Your task to perform on an android device: turn on airplane mode Image 0: 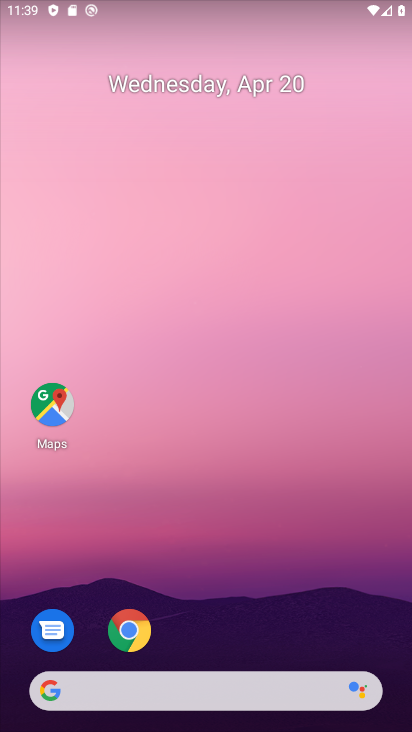
Step 0: drag from (247, 580) to (261, 164)
Your task to perform on an android device: turn on airplane mode Image 1: 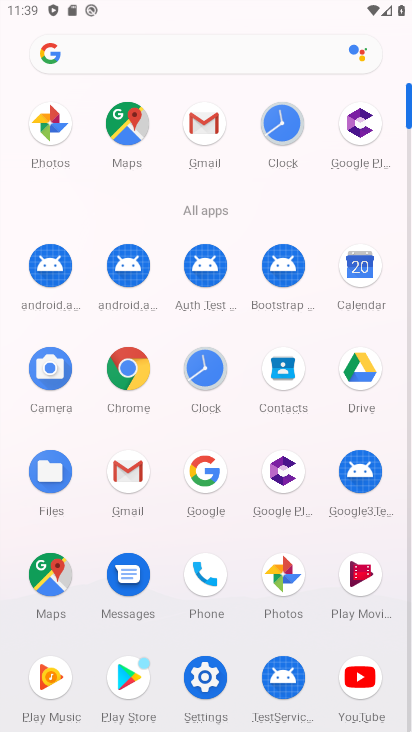
Step 1: click (215, 684)
Your task to perform on an android device: turn on airplane mode Image 2: 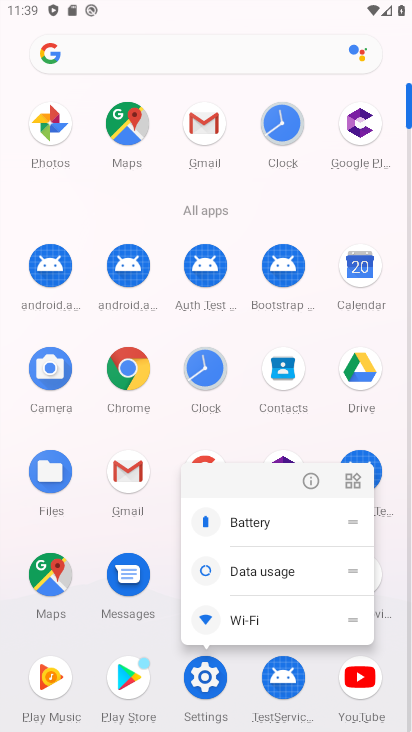
Step 2: click (206, 683)
Your task to perform on an android device: turn on airplane mode Image 3: 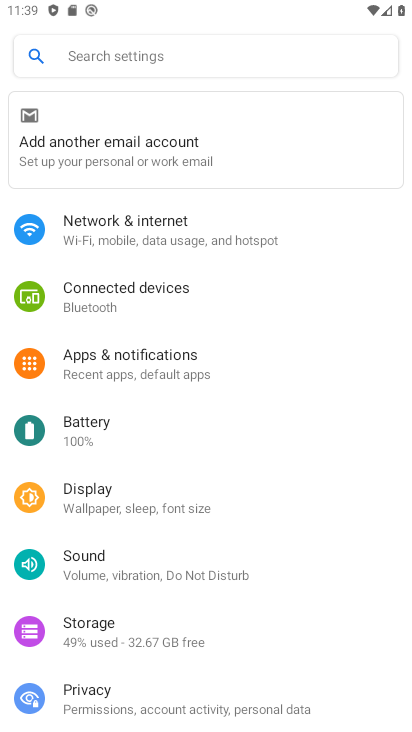
Step 3: click (87, 238)
Your task to perform on an android device: turn on airplane mode Image 4: 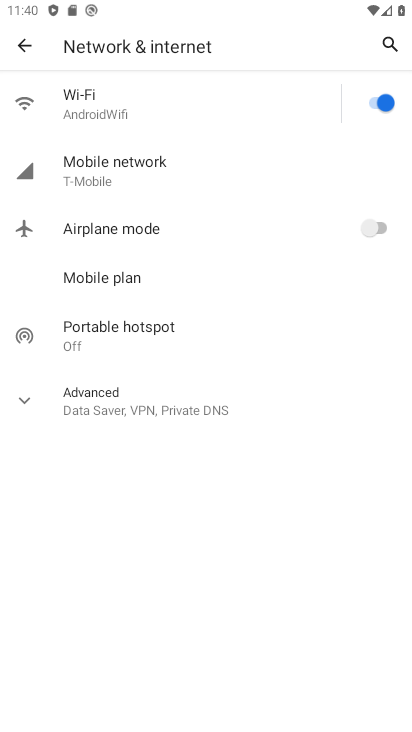
Step 4: click (385, 233)
Your task to perform on an android device: turn on airplane mode Image 5: 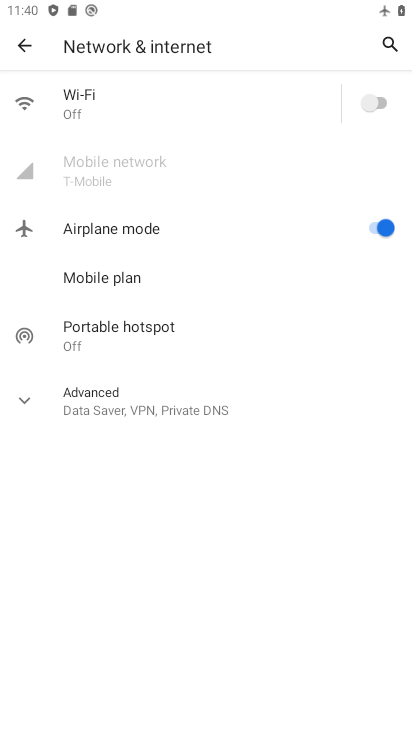
Step 5: task complete